Your task to perform on an android device: toggle sleep mode Image 0: 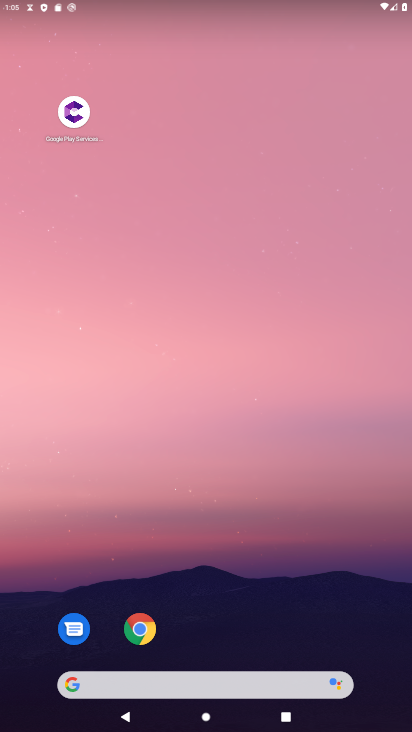
Step 0: drag from (253, 542) to (274, 3)
Your task to perform on an android device: toggle sleep mode Image 1: 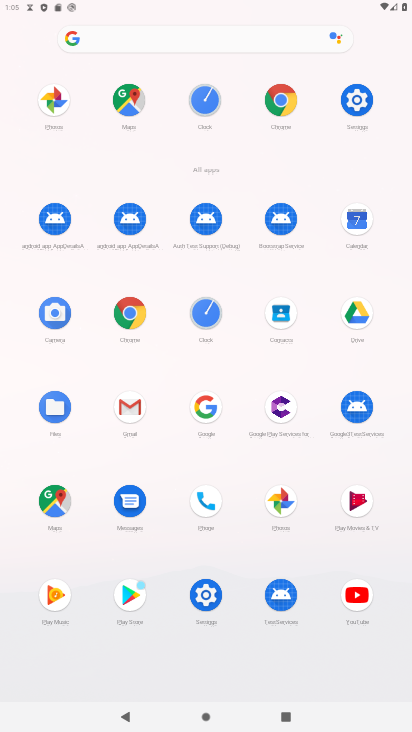
Step 1: click (357, 99)
Your task to perform on an android device: toggle sleep mode Image 2: 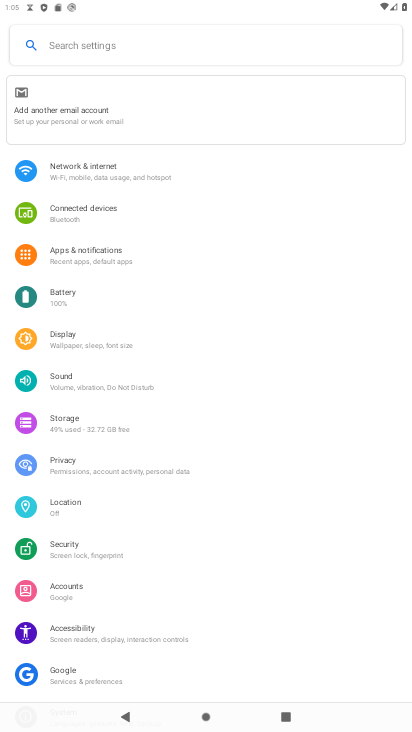
Step 2: click (267, 47)
Your task to perform on an android device: toggle sleep mode Image 3: 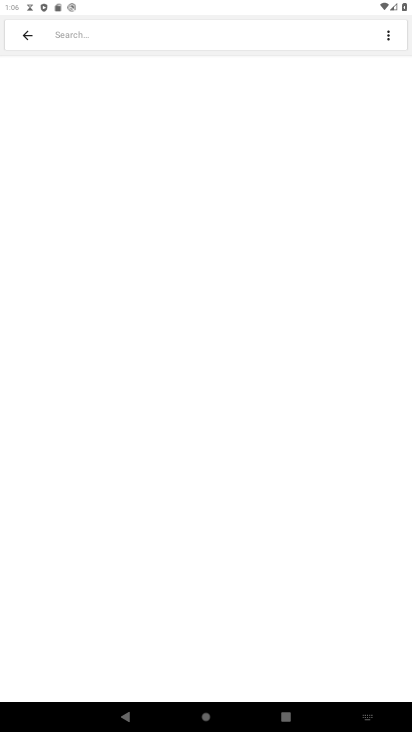
Step 3: type "sleep mode"
Your task to perform on an android device: toggle sleep mode Image 4: 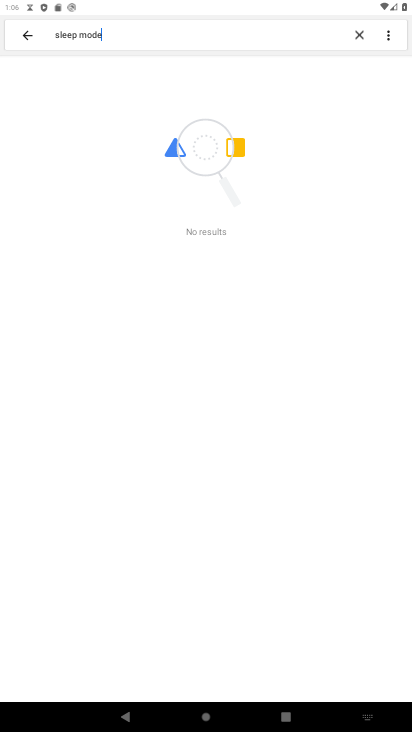
Step 4: task complete